Your task to perform on an android device: move a message to another label in the gmail app Image 0: 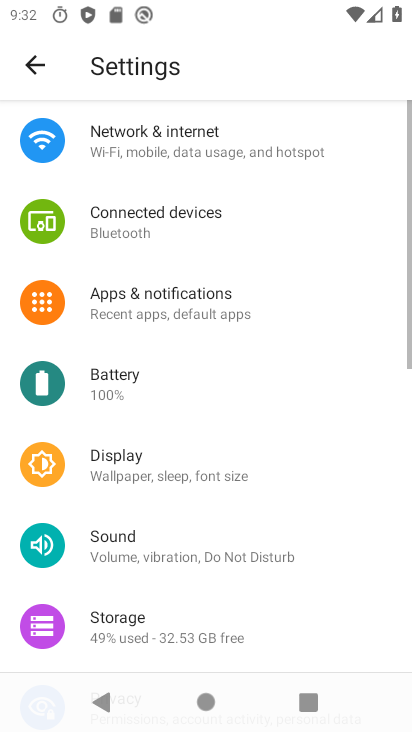
Step 0: press home button
Your task to perform on an android device: move a message to another label in the gmail app Image 1: 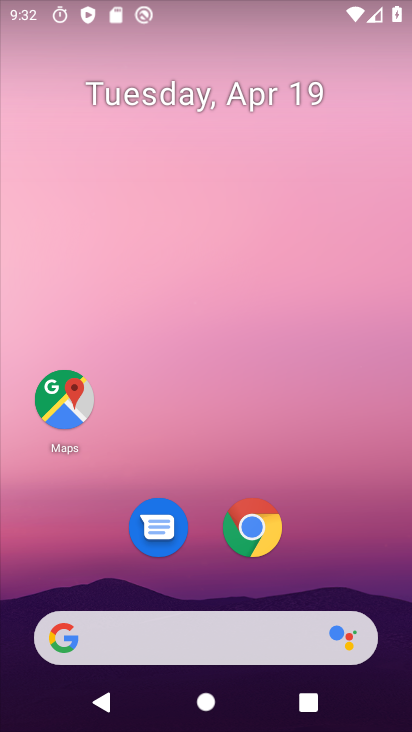
Step 1: drag from (254, 671) to (257, 231)
Your task to perform on an android device: move a message to another label in the gmail app Image 2: 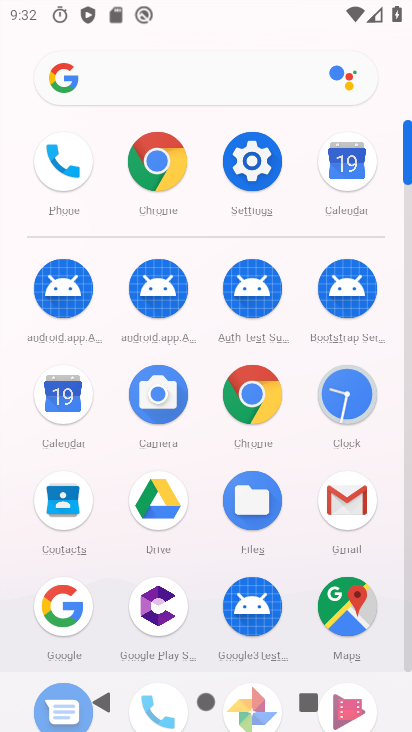
Step 2: click (345, 494)
Your task to perform on an android device: move a message to another label in the gmail app Image 3: 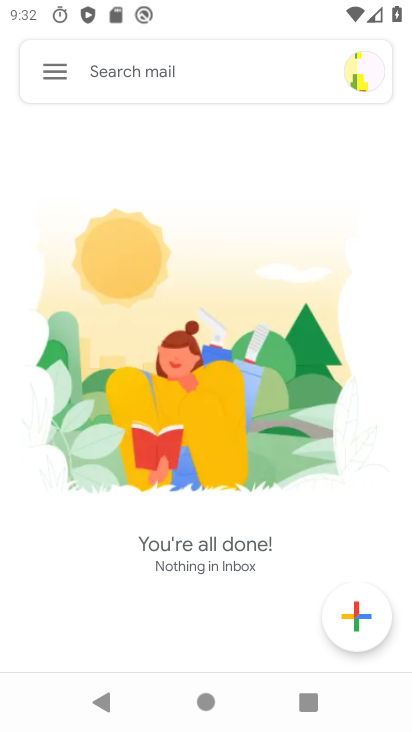
Step 3: click (65, 52)
Your task to perform on an android device: move a message to another label in the gmail app Image 4: 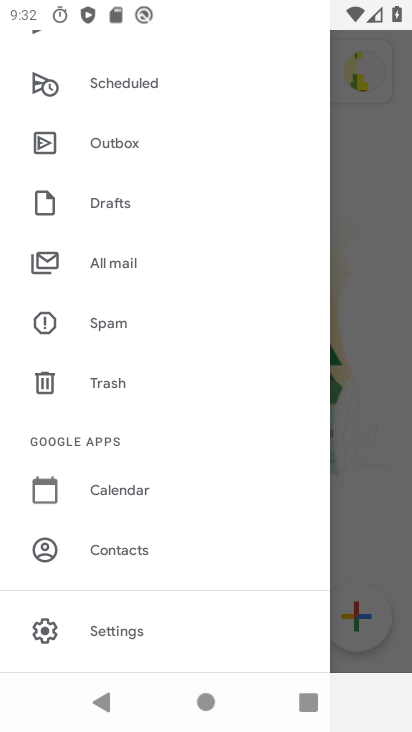
Step 4: click (122, 630)
Your task to perform on an android device: move a message to another label in the gmail app Image 5: 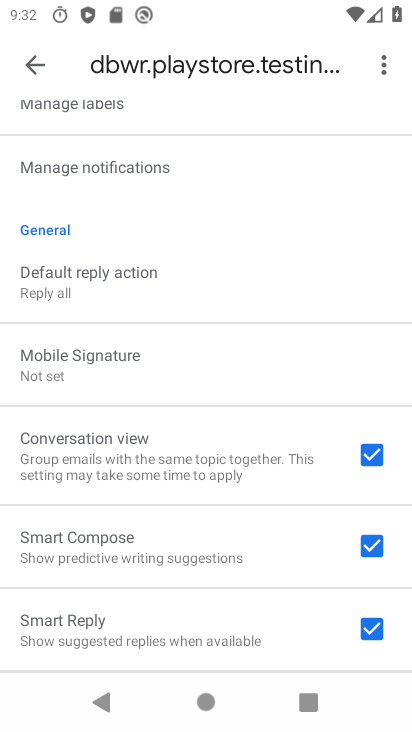
Step 5: drag from (123, 250) to (115, 444)
Your task to perform on an android device: move a message to another label in the gmail app Image 6: 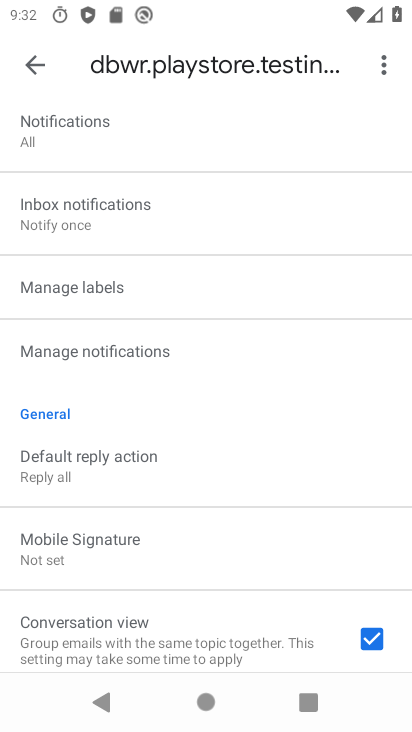
Step 6: click (100, 297)
Your task to perform on an android device: move a message to another label in the gmail app Image 7: 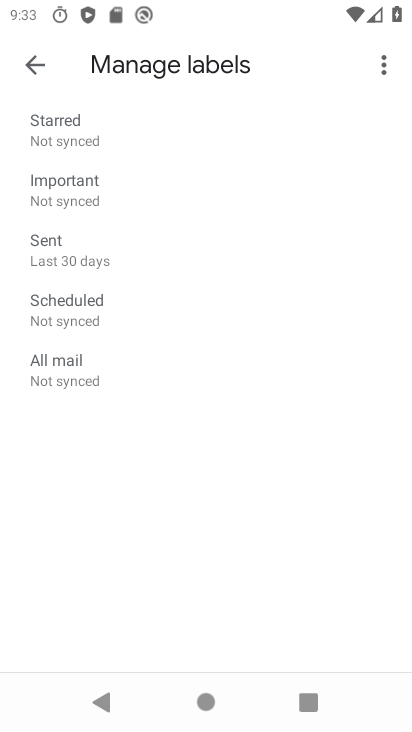
Step 7: task complete